Your task to perform on an android device: change the clock display to show seconds Image 0: 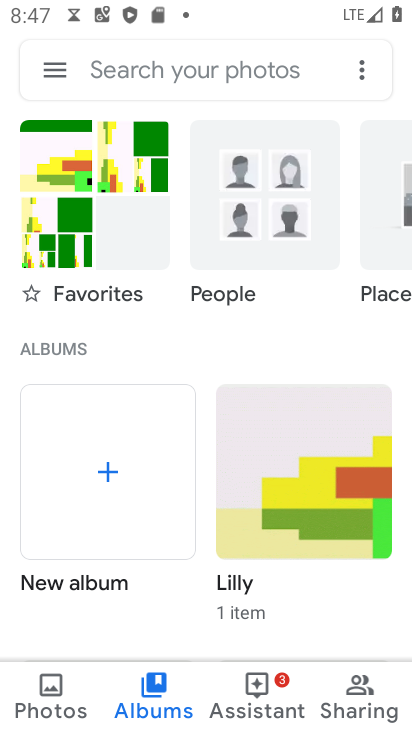
Step 0: press back button
Your task to perform on an android device: change the clock display to show seconds Image 1: 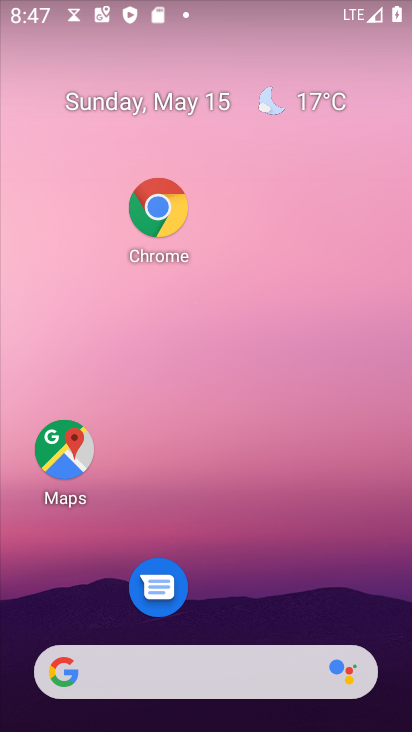
Step 1: drag from (306, 656) to (95, 17)
Your task to perform on an android device: change the clock display to show seconds Image 2: 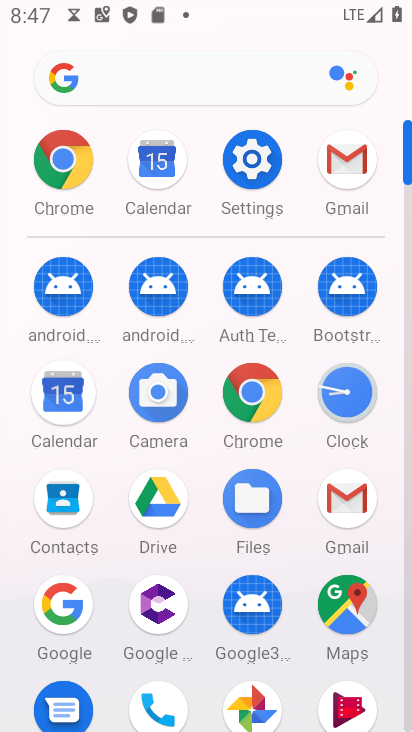
Step 2: click (344, 404)
Your task to perform on an android device: change the clock display to show seconds Image 3: 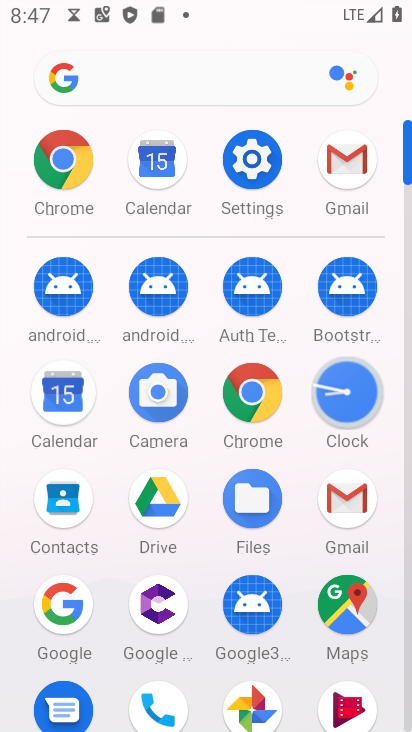
Step 3: click (344, 404)
Your task to perform on an android device: change the clock display to show seconds Image 4: 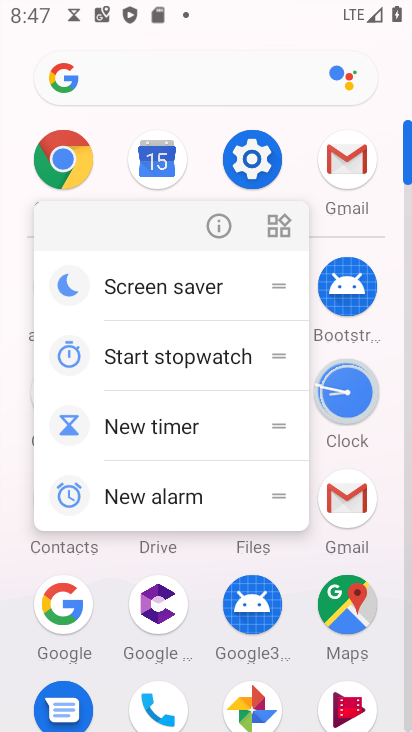
Step 4: click (346, 405)
Your task to perform on an android device: change the clock display to show seconds Image 5: 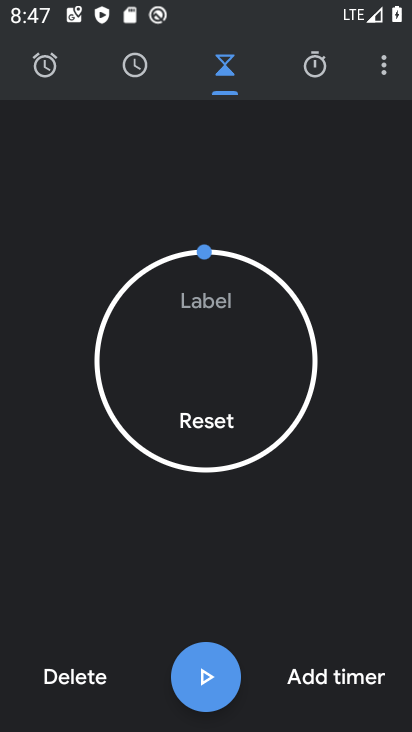
Step 5: click (384, 72)
Your task to perform on an android device: change the clock display to show seconds Image 6: 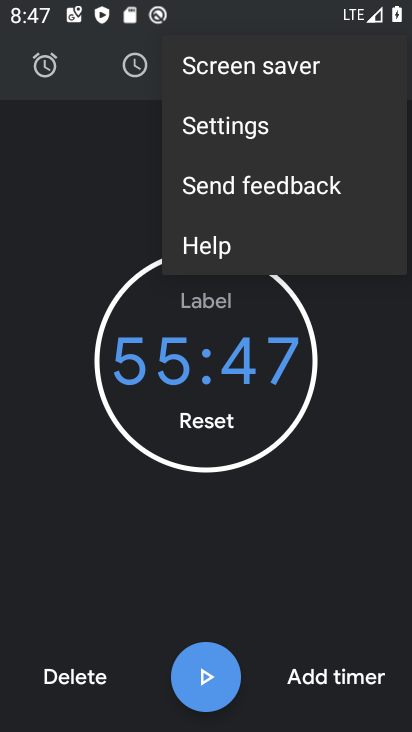
Step 6: click (233, 128)
Your task to perform on an android device: change the clock display to show seconds Image 7: 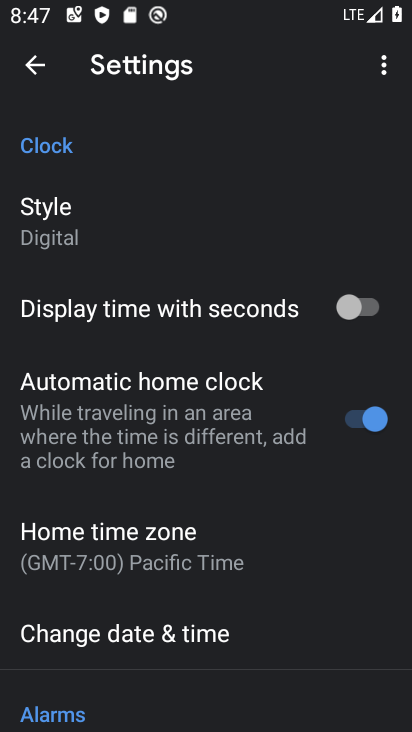
Step 7: click (349, 303)
Your task to perform on an android device: change the clock display to show seconds Image 8: 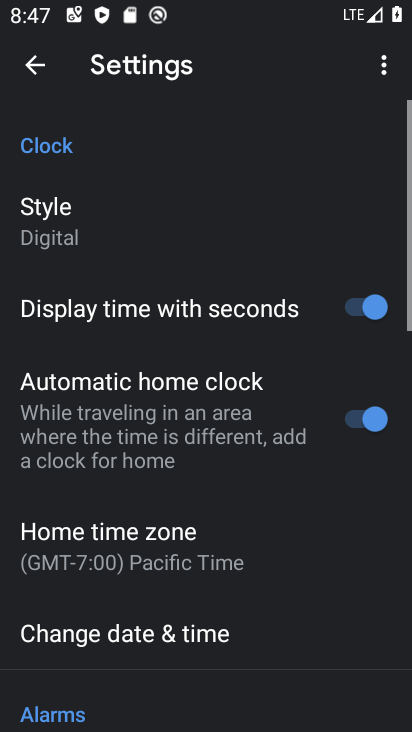
Step 8: task complete